Your task to perform on an android device: Go to Android settings Image 0: 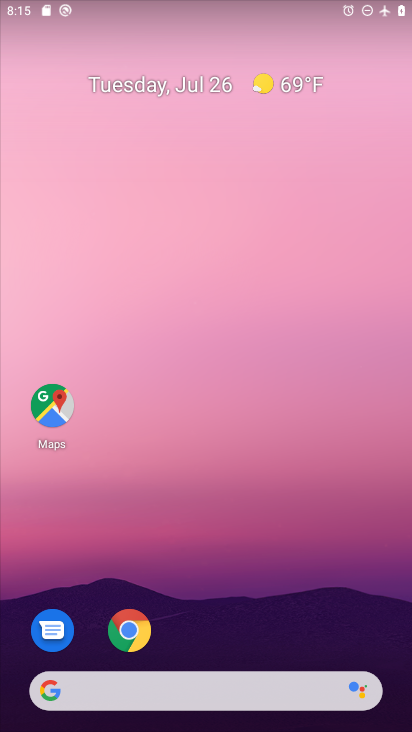
Step 0: drag from (246, 627) to (220, 143)
Your task to perform on an android device: Go to Android settings Image 1: 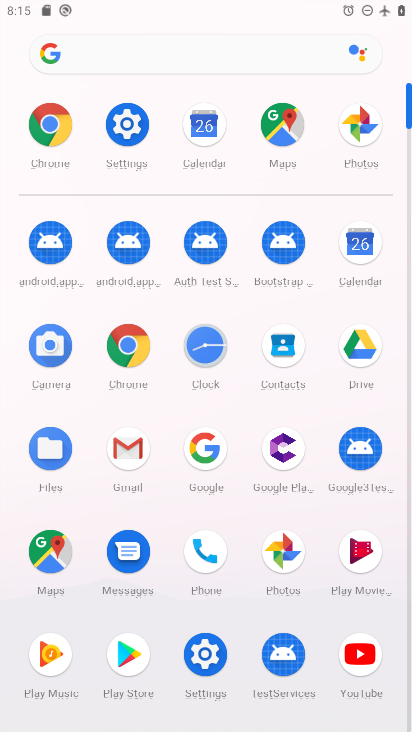
Step 1: click (203, 659)
Your task to perform on an android device: Go to Android settings Image 2: 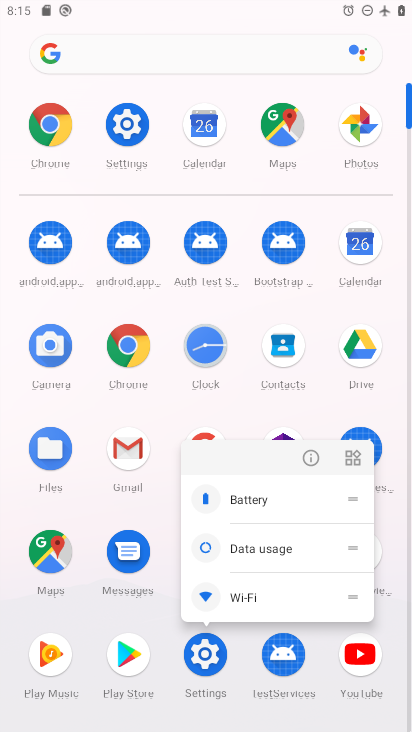
Step 2: click (205, 665)
Your task to perform on an android device: Go to Android settings Image 3: 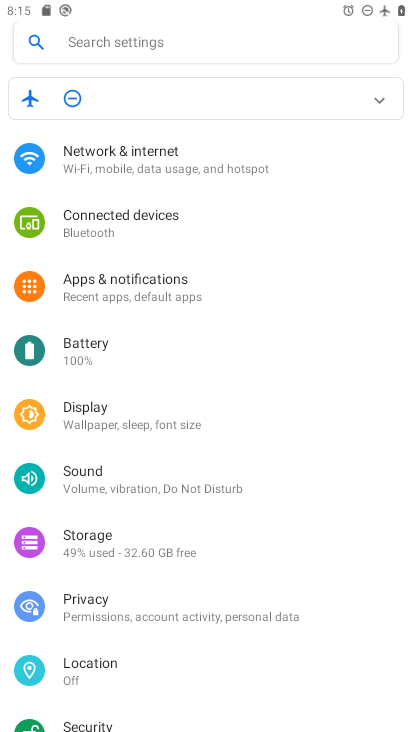
Step 3: task complete